Your task to perform on an android device: Go to CNN.com Image 0: 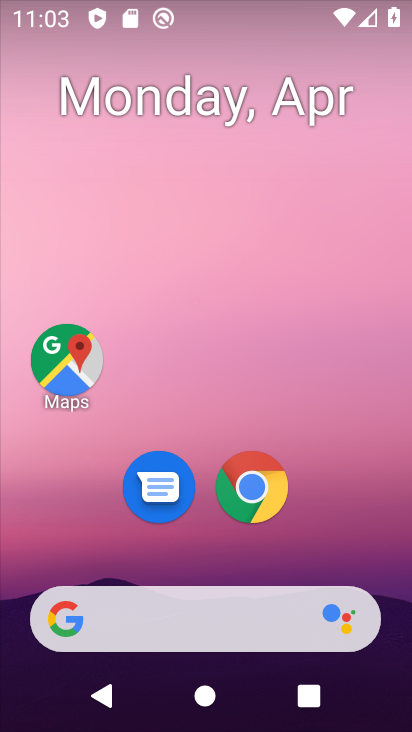
Step 0: drag from (365, 531) to (292, 115)
Your task to perform on an android device: Go to CNN.com Image 1: 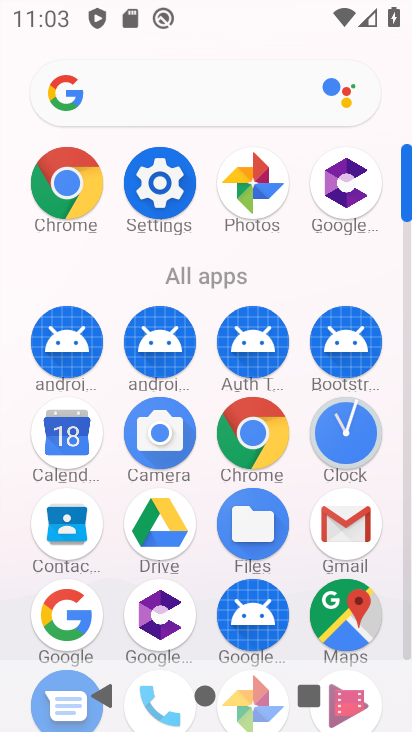
Step 1: click (253, 441)
Your task to perform on an android device: Go to CNN.com Image 2: 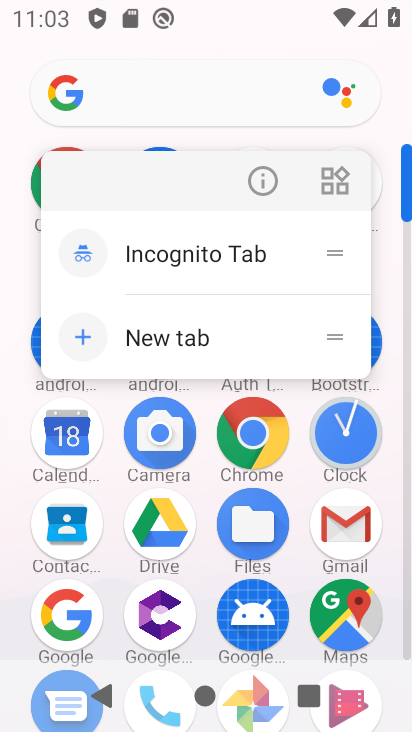
Step 2: click (253, 441)
Your task to perform on an android device: Go to CNN.com Image 3: 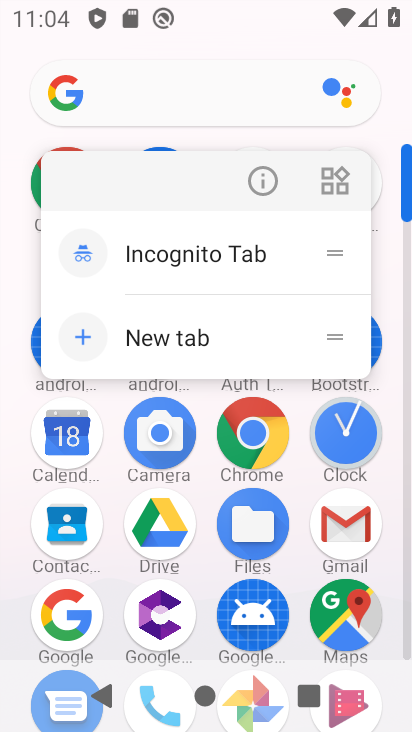
Step 3: click (253, 441)
Your task to perform on an android device: Go to CNN.com Image 4: 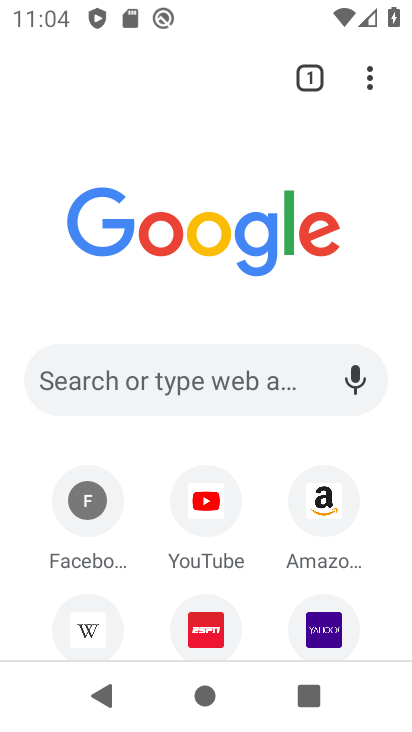
Step 4: click (251, 398)
Your task to perform on an android device: Go to CNN.com Image 5: 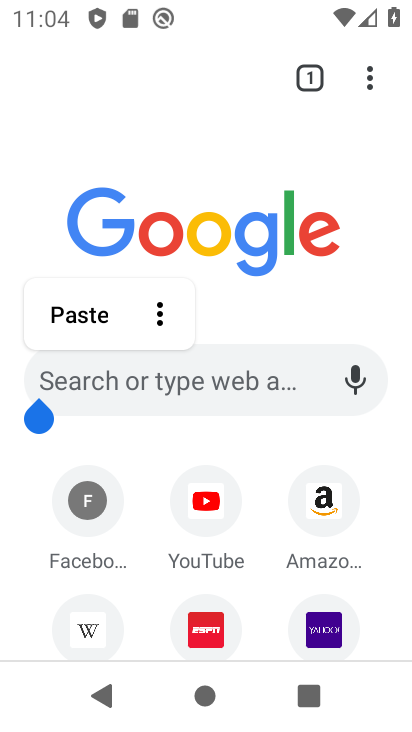
Step 5: click (251, 398)
Your task to perform on an android device: Go to CNN.com Image 6: 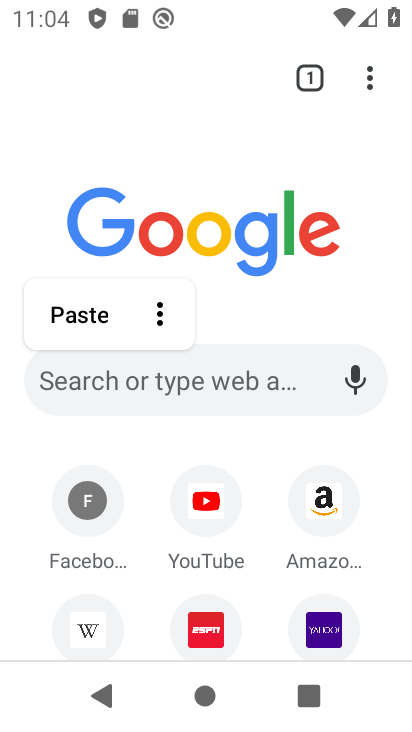
Step 6: click (141, 372)
Your task to perform on an android device: Go to CNN.com Image 7: 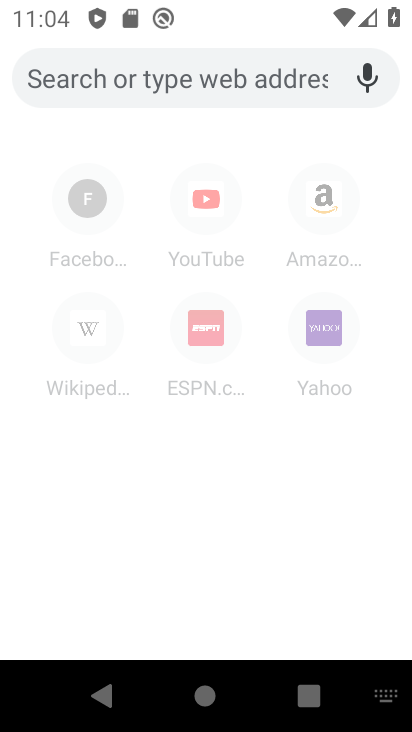
Step 7: type "cnn"
Your task to perform on an android device: Go to CNN.com Image 8: 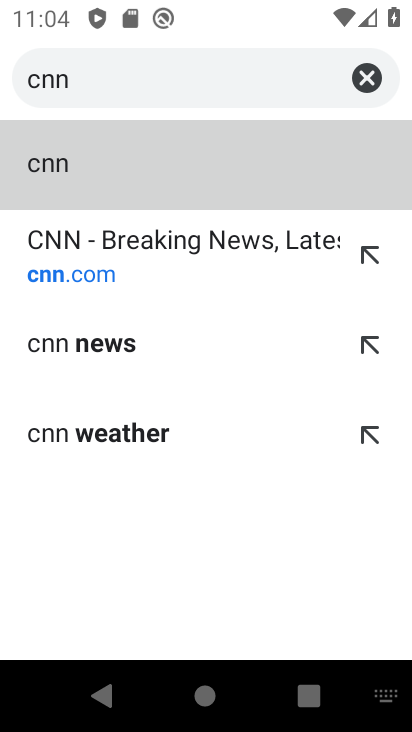
Step 8: click (209, 240)
Your task to perform on an android device: Go to CNN.com Image 9: 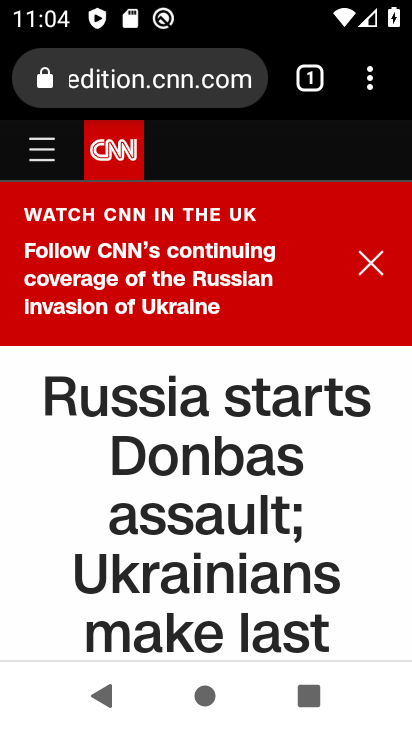
Step 9: task complete